Your task to perform on an android device: turn smart compose on in the gmail app Image 0: 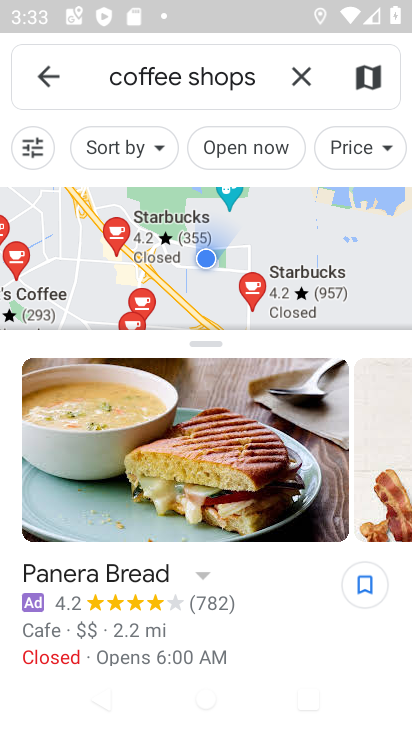
Step 0: press home button
Your task to perform on an android device: turn smart compose on in the gmail app Image 1: 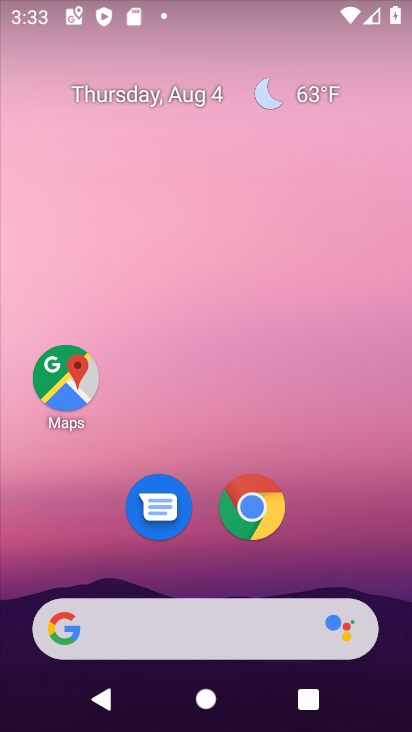
Step 1: drag from (44, 607) to (200, 82)
Your task to perform on an android device: turn smart compose on in the gmail app Image 2: 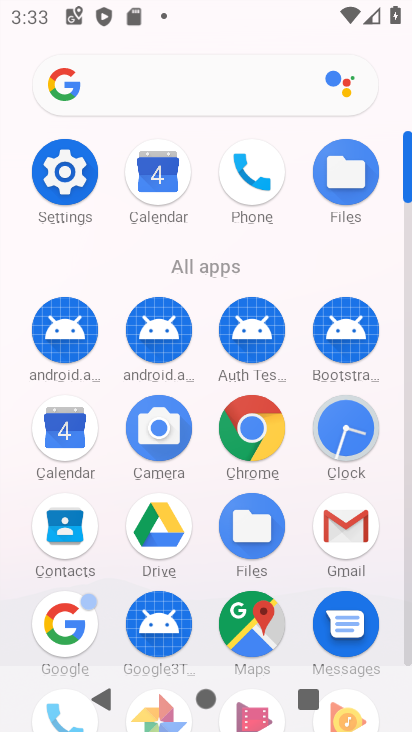
Step 2: click (325, 513)
Your task to perform on an android device: turn smart compose on in the gmail app Image 3: 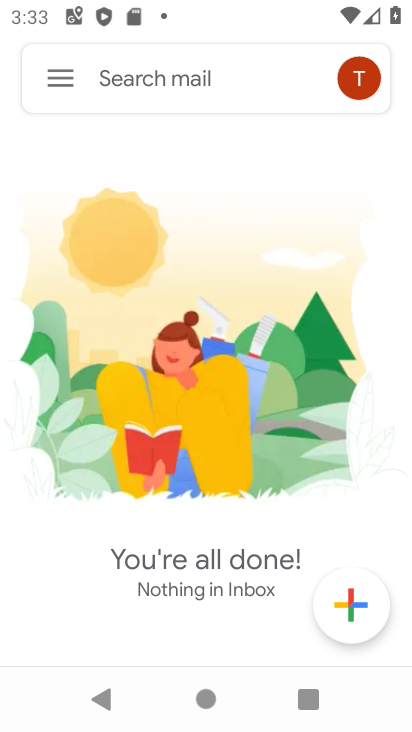
Step 3: click (67, 83)
Your task to perform on an android device: turn smart compose on in the gmail app Image 4: 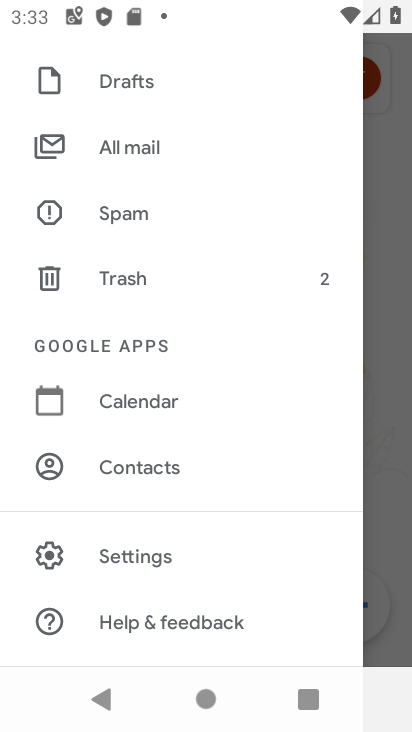
Step 4: click (105, 552)
Your task to perform on an android device: turn smart compose on in the gmail app Image 5: 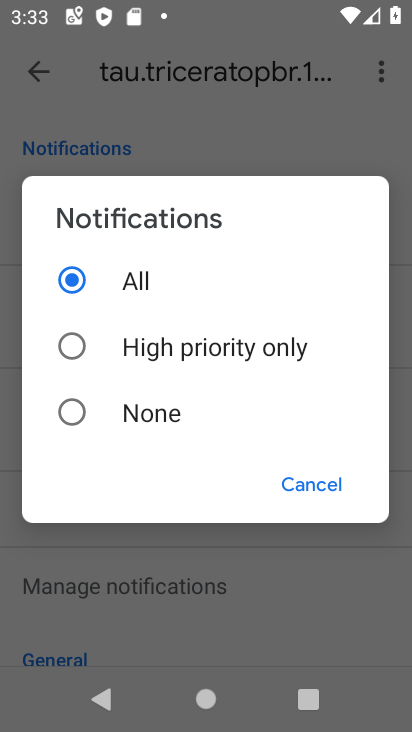
Step 5: click (299, 483)
Your task to perform on an android device: turn smart compose on in the gmail app Image 6: 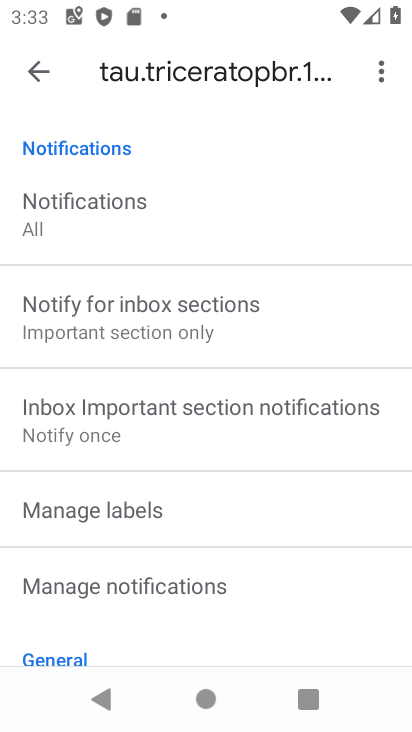
Step 6: task complete